Your task to perform on an android device: Go to network settings Image 0: 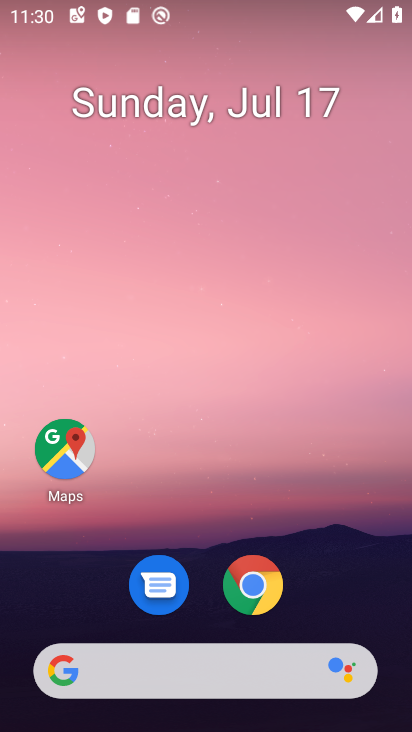
Step 0: drag from (256, 426) to (277, 2)
Your task to perform on an android device: Go to network settings Image 1: 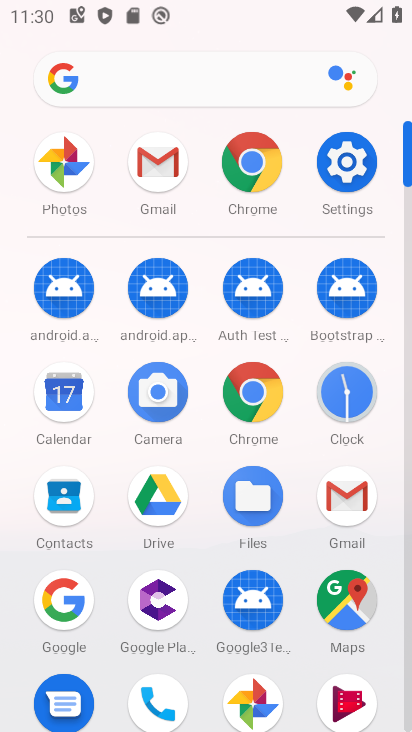
Step 1: click (358, 154)
Your task to perform on an android device: Go to network settings Image 2: 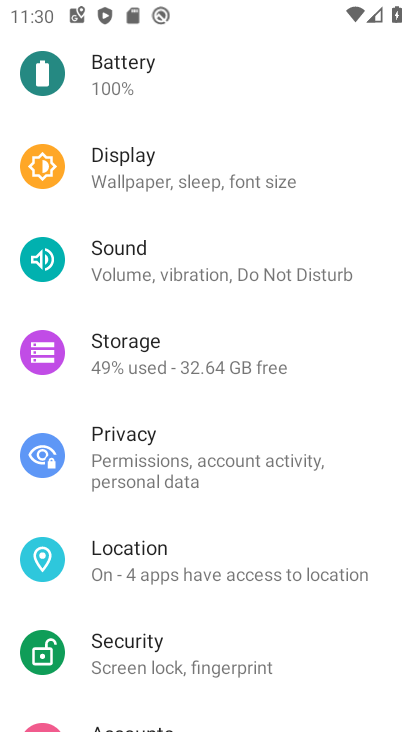
Step 2: drag from (186, 316) to (207, 636)
Your task to perform on an android device: Go to network settings Image 3: 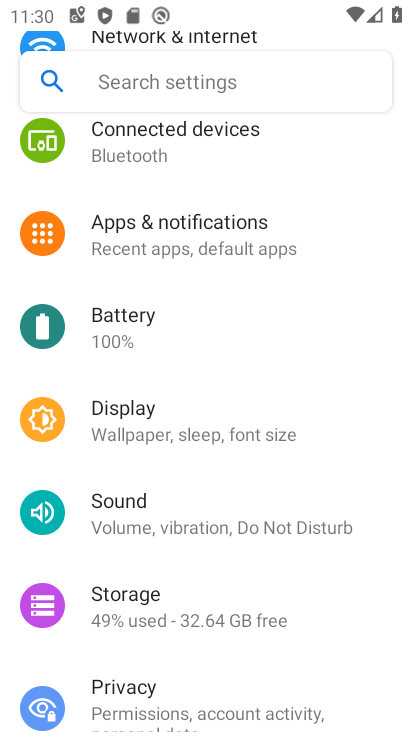
Step 3: drag from (279, 338) to (288, 458)
Your task to perform on an android device: Go to network settings Image 4: 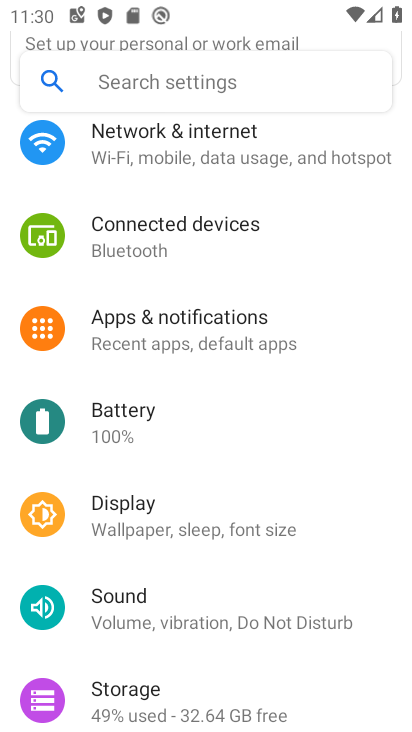
Step 4: click (249, 152)
Your task to perform on an android device: Go to network settings Image 5: 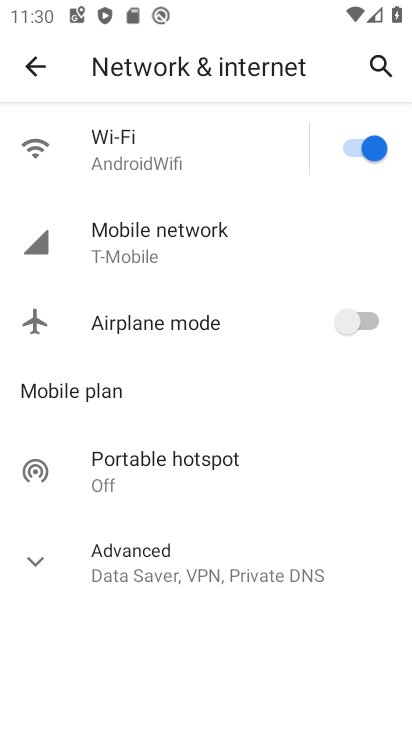
Step 5: task complete